Your task to perform on an android device: What's the weather going to be this weekend? Image 0: 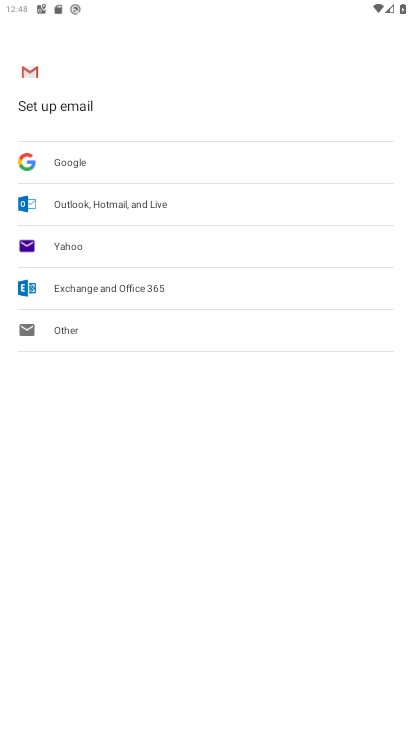
Step 0: press home button
Your task to perform on an android device: What's the weather going to be this weekend? Image 1: 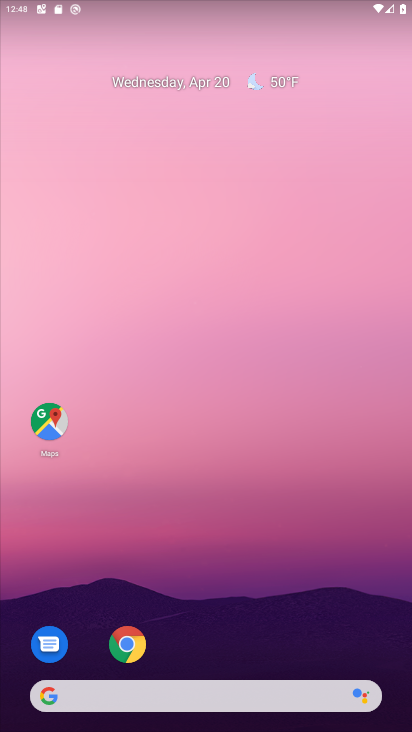
Step 1: click (262, 77)
Your task to perform on an android device: What's the weather going to be this weekend? Image 2: 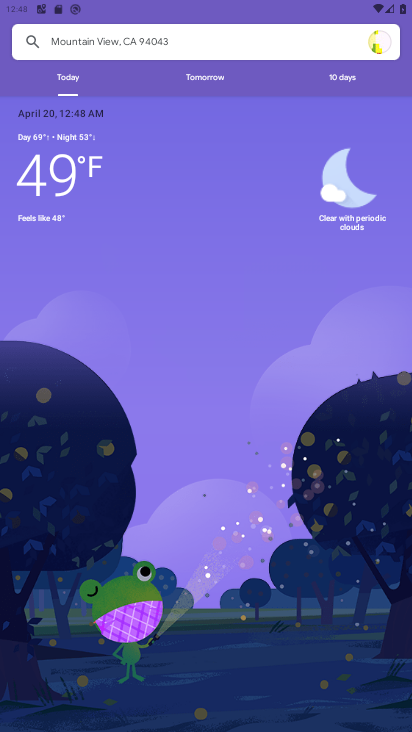
Step 2: click (344, 77)
Your task to perform on an android device: What's the weather going to be this weekend? Image 3: 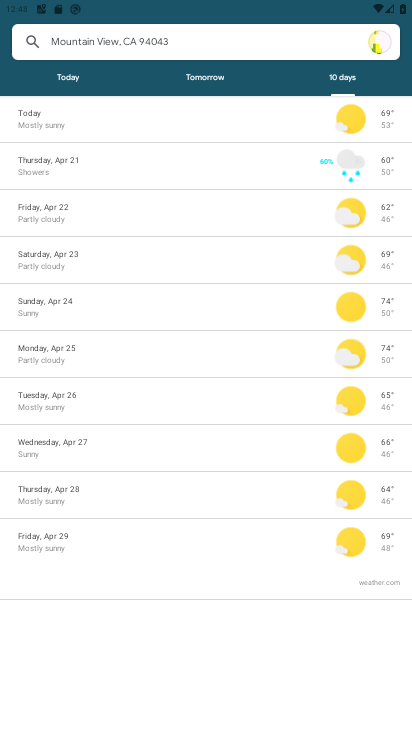
Step 3: task complete